Your task to perform on an android device: Open the stopwatch Image 0: 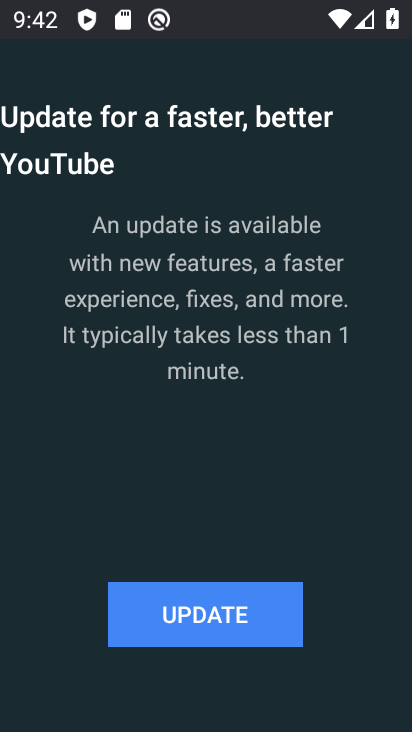
Step 0: press home button
Your task to perform on an android device: Open the stopwatch Image 1: 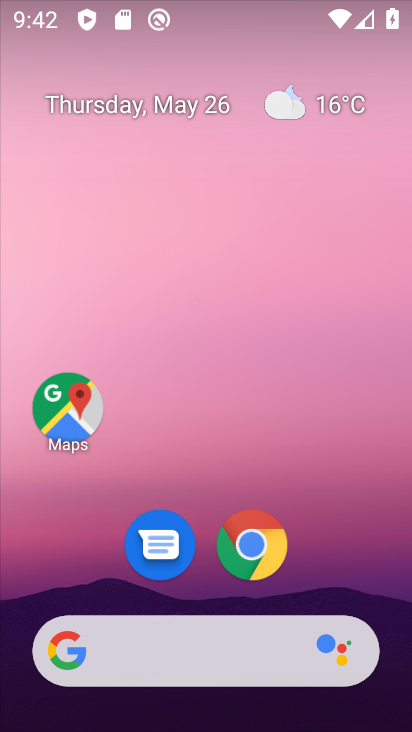
Step 1: drag from (321, 472) to (336, 33)
Your task to perform on an android device: Open the stopwatch Image 2: 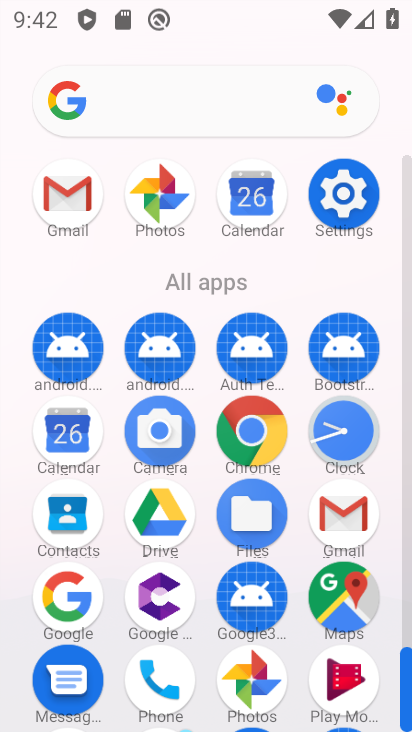
Step 2: click (348, 435)
Your task to perform on an android device: Open the stopwatch Image 3: 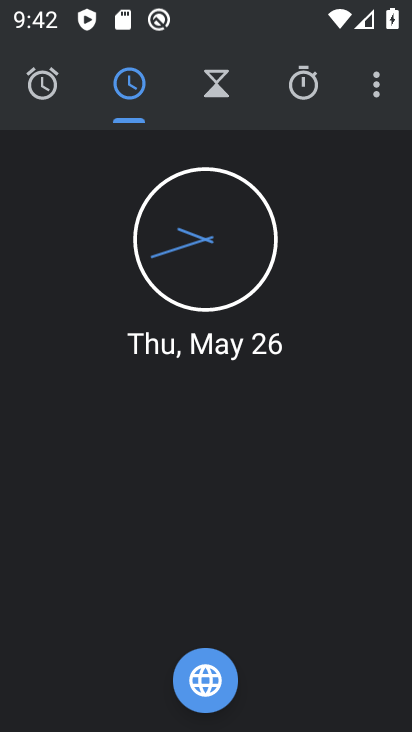
Step 3: task complete